Your task to perform on an android device: Open Yahoo.com Image 0: 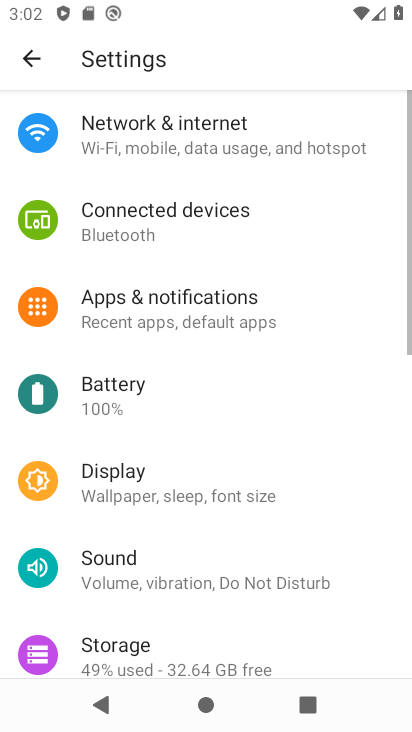
Step 0: press back button
Your task to perform on an android device: Open Yahoo.com Image 1: 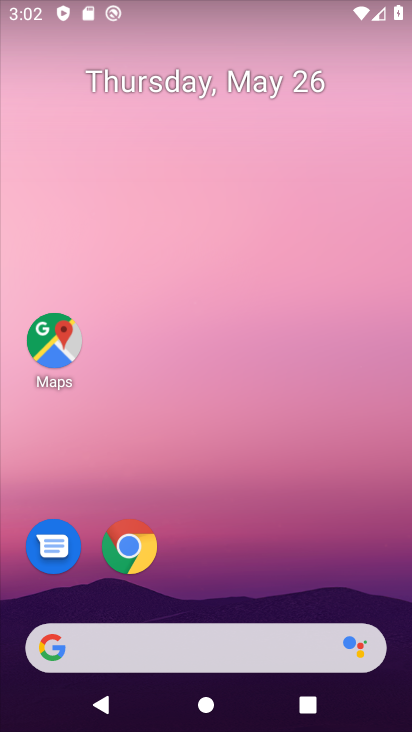
Step 1: click (136, 538)
Your task to perform on an android device: Open Yahoo.com Image 2: 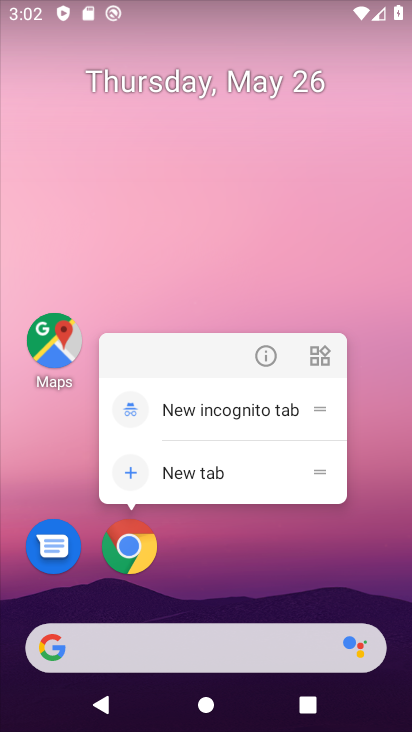
Step 2: click (126, 539)
Your task to perform on an android device: Open Yahoo.com Image 3: 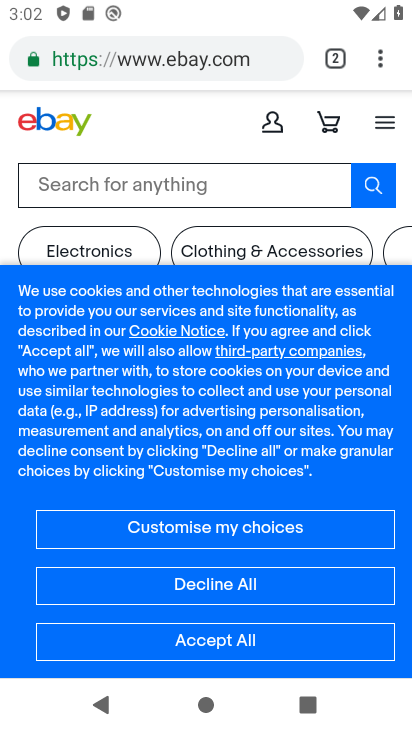
Step 3: click (326, 52)
Your task to perform on an android device: Open Yahoo.com Image 4: 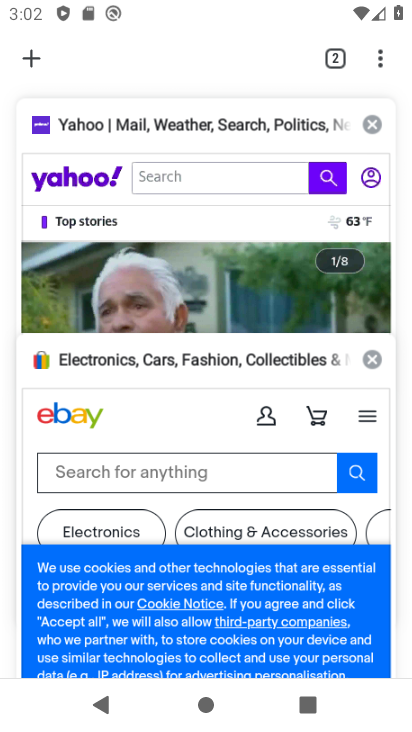
Step 4: click (122, 121)
Your task to perform on an android device: Open Yahoo.com Image 5: 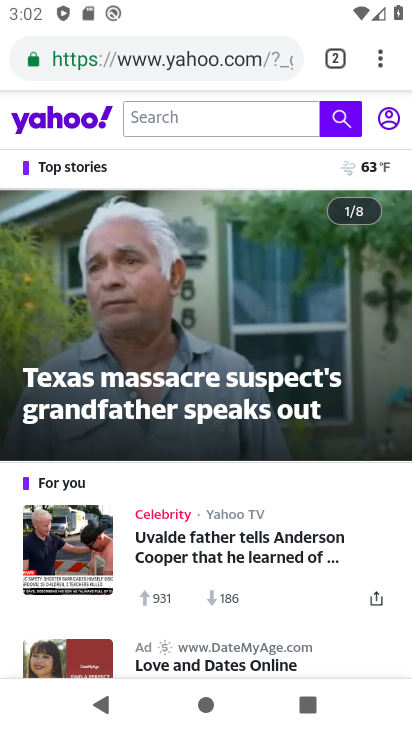
Step 5: task complete